Your task to perform on an android device: Go to notification settings Image 0: 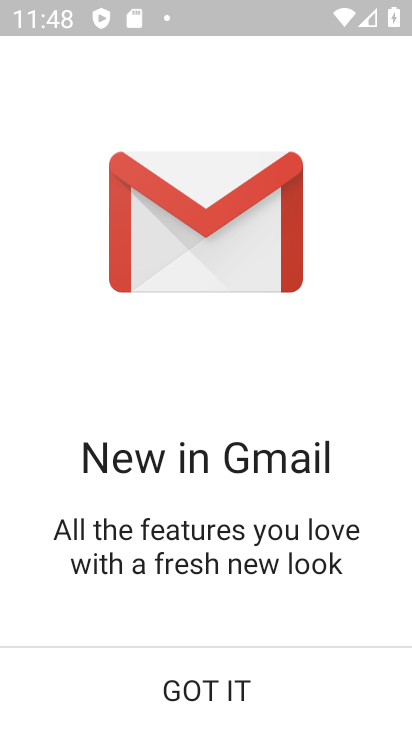
Step 0: press home button
Your task to perform on an android device: Go to notification settings Image 1: 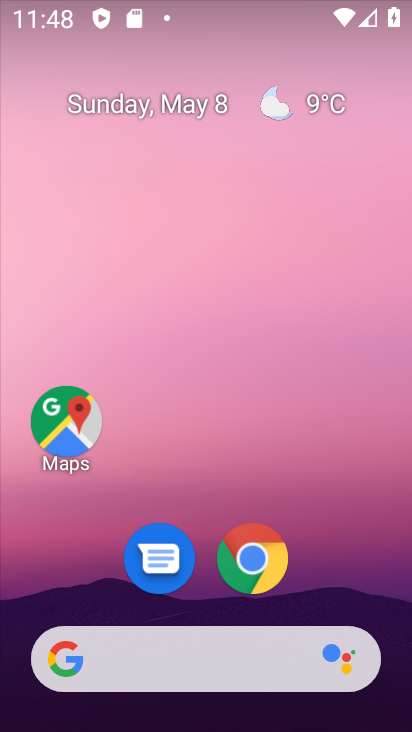
Step 1: drag from (208, 663) to (210, 127)
Your task to perform on an android device: Go to notification settings Image 2: 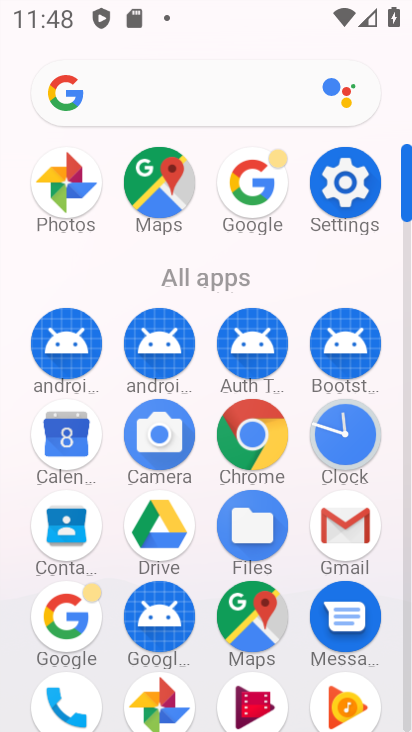
Step 2: click (334, 182)
Your task to perform on an android device: Go to notification settings Image 3: 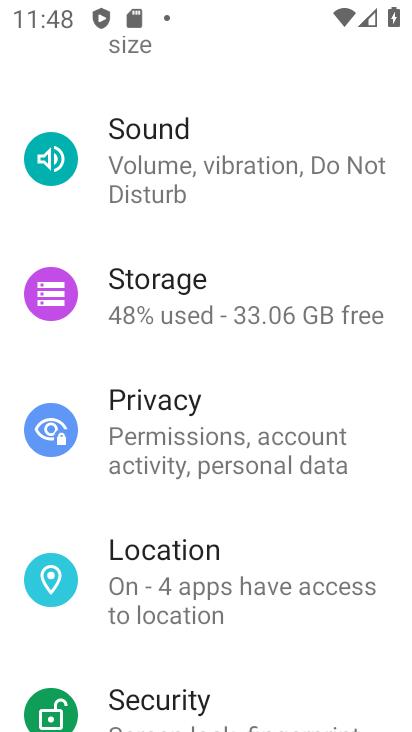
Step 3: drag from (199, 313) to (246, 708)
Your task to perform on an android device: Go to notification settings Image 4: 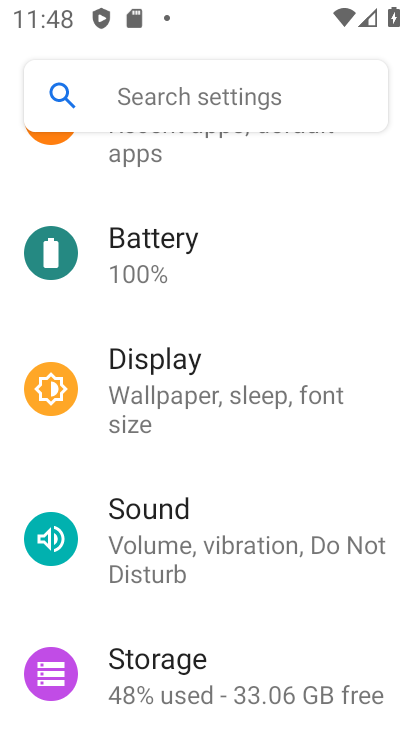
Step 4: drag from (162, 175) to (151, 322)
Your task to perform on an android device: Go to notification settings Image 5: 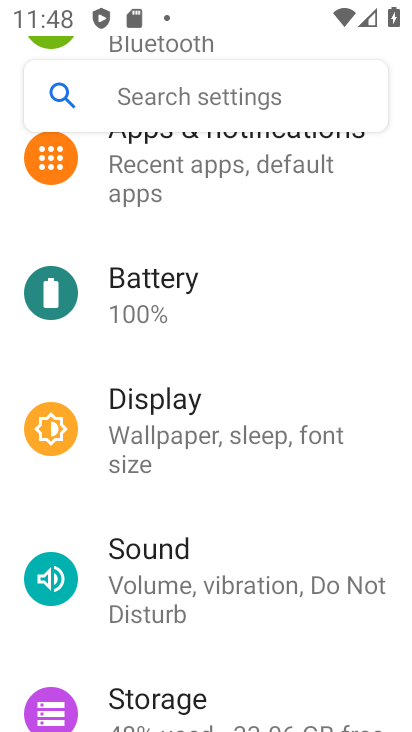
Step 5: click (208, 164)
Your task to perform on an android device: Go to notification settings Image 6: 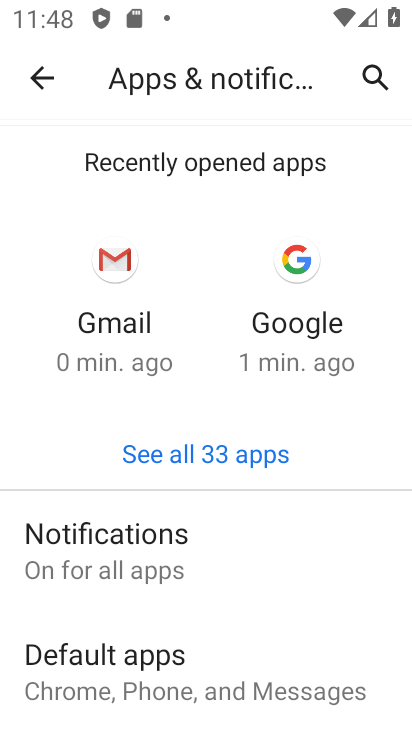
Step 6: task complete